Your task to perform on an android device: Go to settings Image 0: 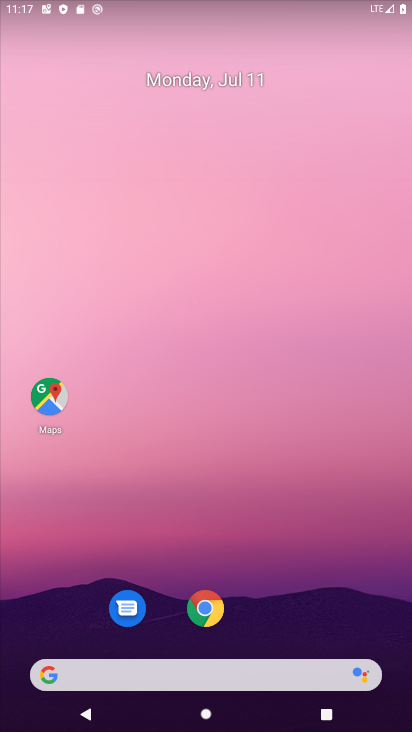
Step 0: drag from (128, 562) to (393, 87)
Your task to perform on an android device: Go to settings Image 1: 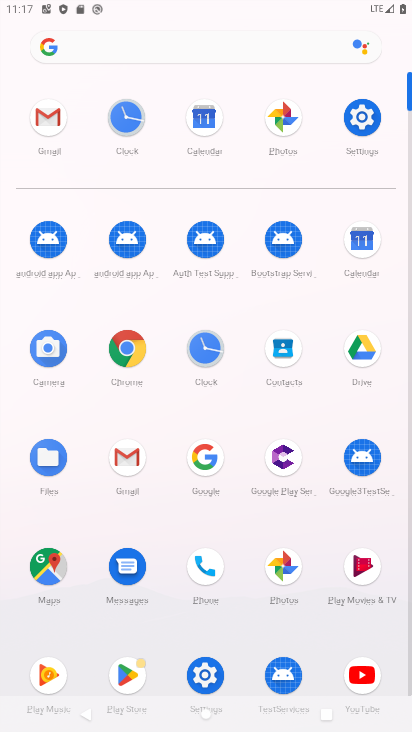
Step 1: click (204, 673)
Your task to perform on an android device: Go to settings Image 2: 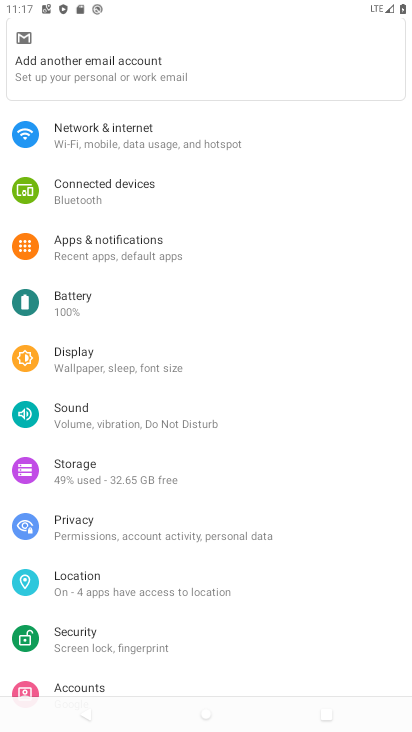
Step 2: task complete